Your task to perform on an android device: change the clock style Image 0: 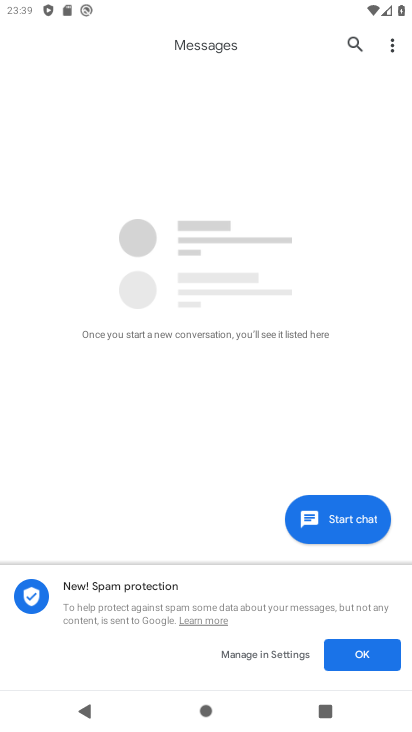
Step 0: press home button
Your task to perform on an android device: change the clock style Image 1: 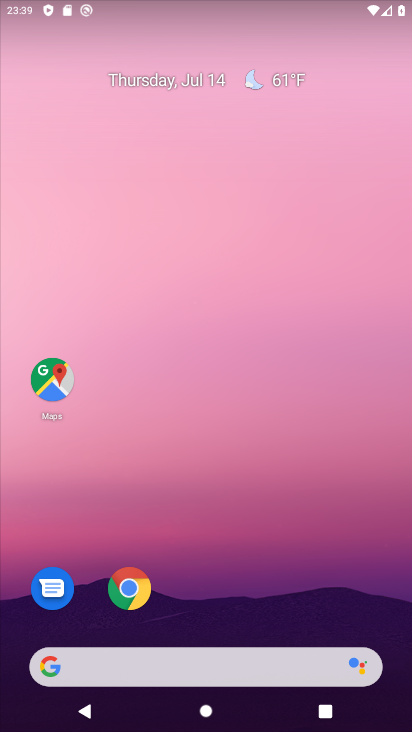
Step 1: drag from (177, 621) to (221, 1)
Your task to perform on an android device: change the clock style Image 2: 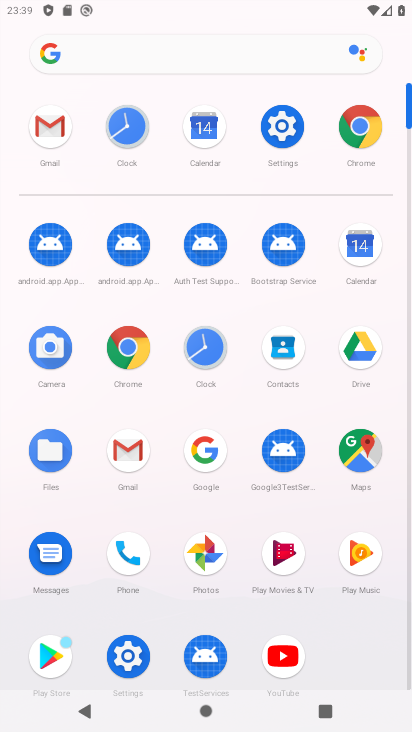
Step 2: click (204, 364)
Your task to perform on an android device: change the clock style Image 3: 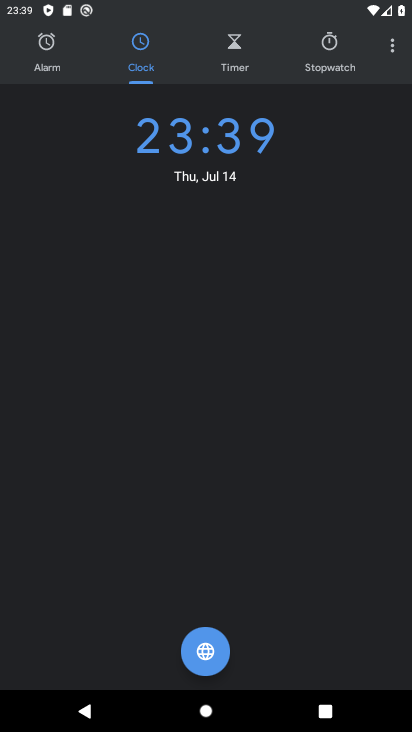
Step 3: click (390, 42)
Your task to perform on an android device: change the clock style Image 4: 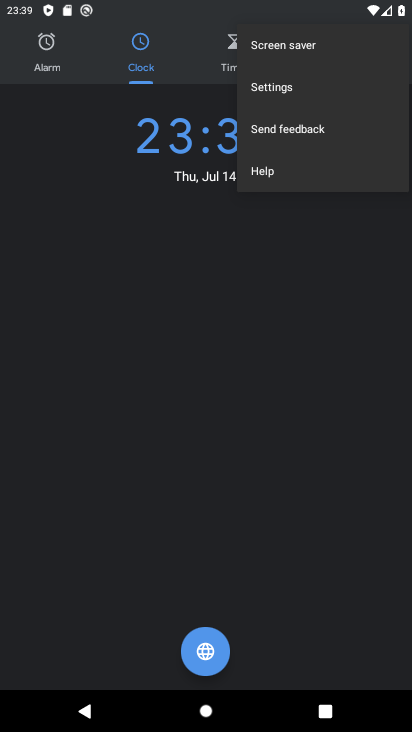
Step 4: click (266, 92)
Your task to perform on an android device: change the clock style Image 5: 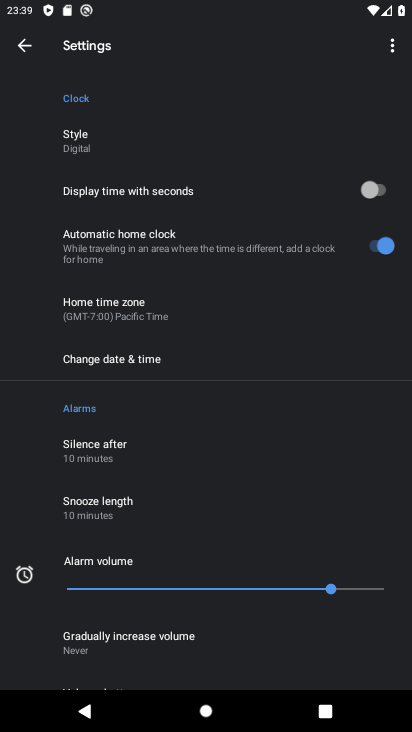
Step 5: click (82, 148)
Your task to perform on an android device: change the clock style Image 6: 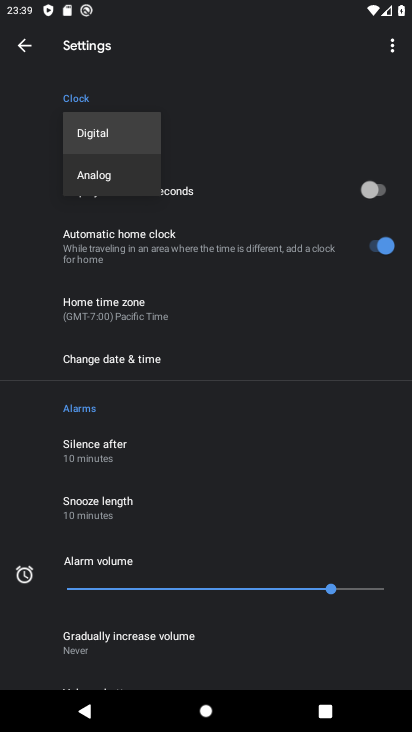
Step 6: click (109, 171)
Your task to perform on an android device: change the clock style Image 7: 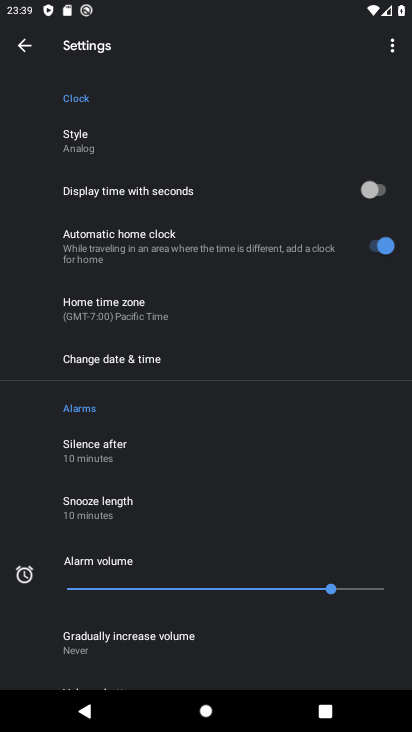
Step 7: task complete